Your task to perform on an android device: uninstall "Google Play services" Image 0: 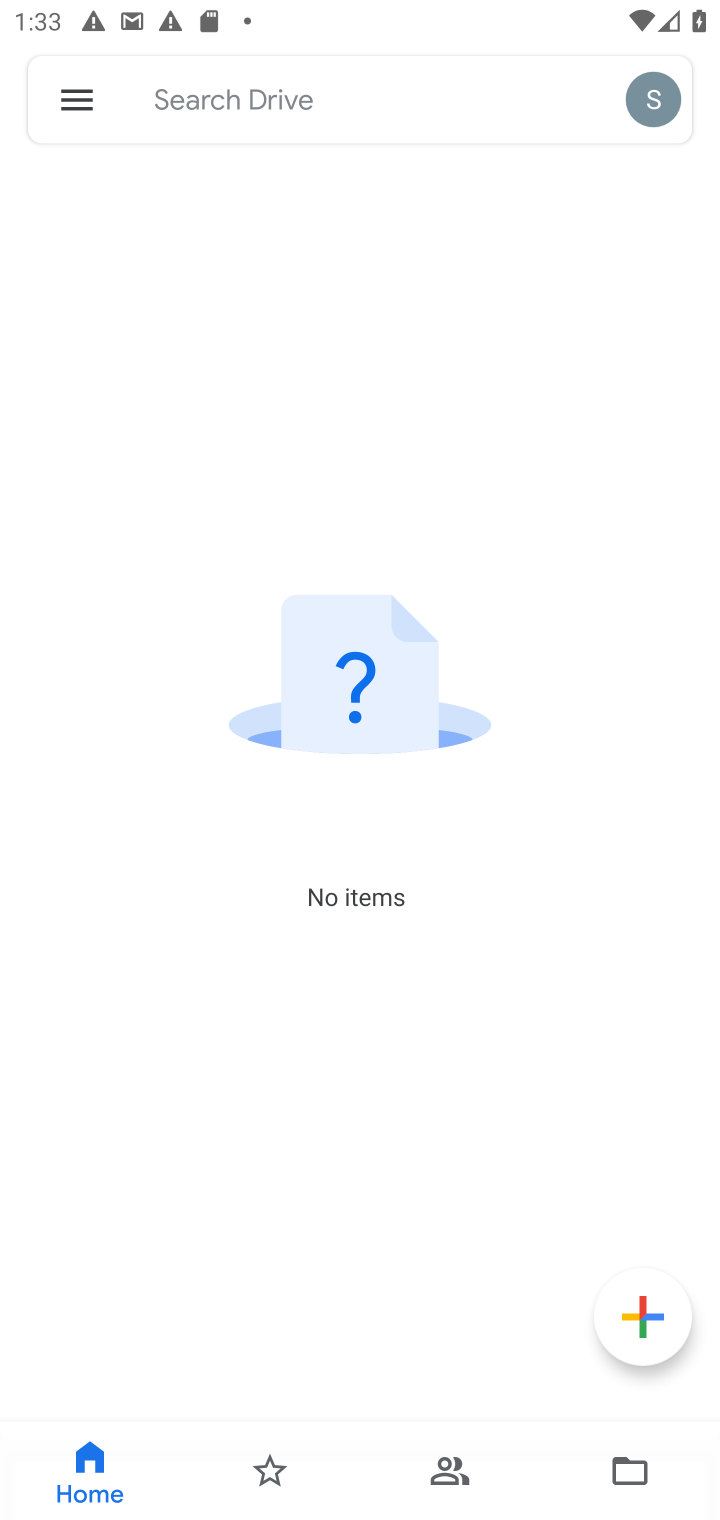
Step 0: press home button
Your task to perform on an android device: uninstall "Google Play services" Image 1: 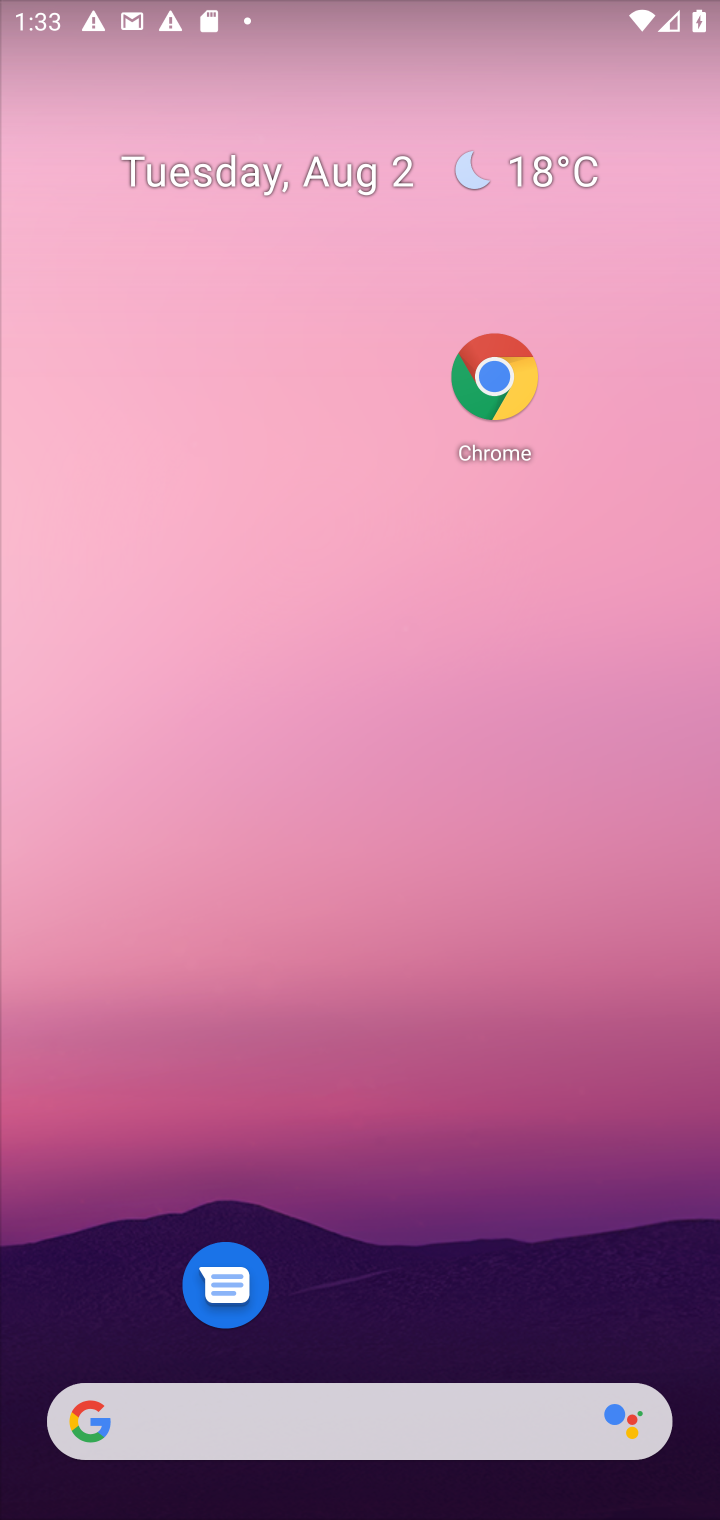
Step 1: drag from (343, 1340) to (366, 572)
Your task to perform on an android device: uninstall "Google Play services" Image 2: 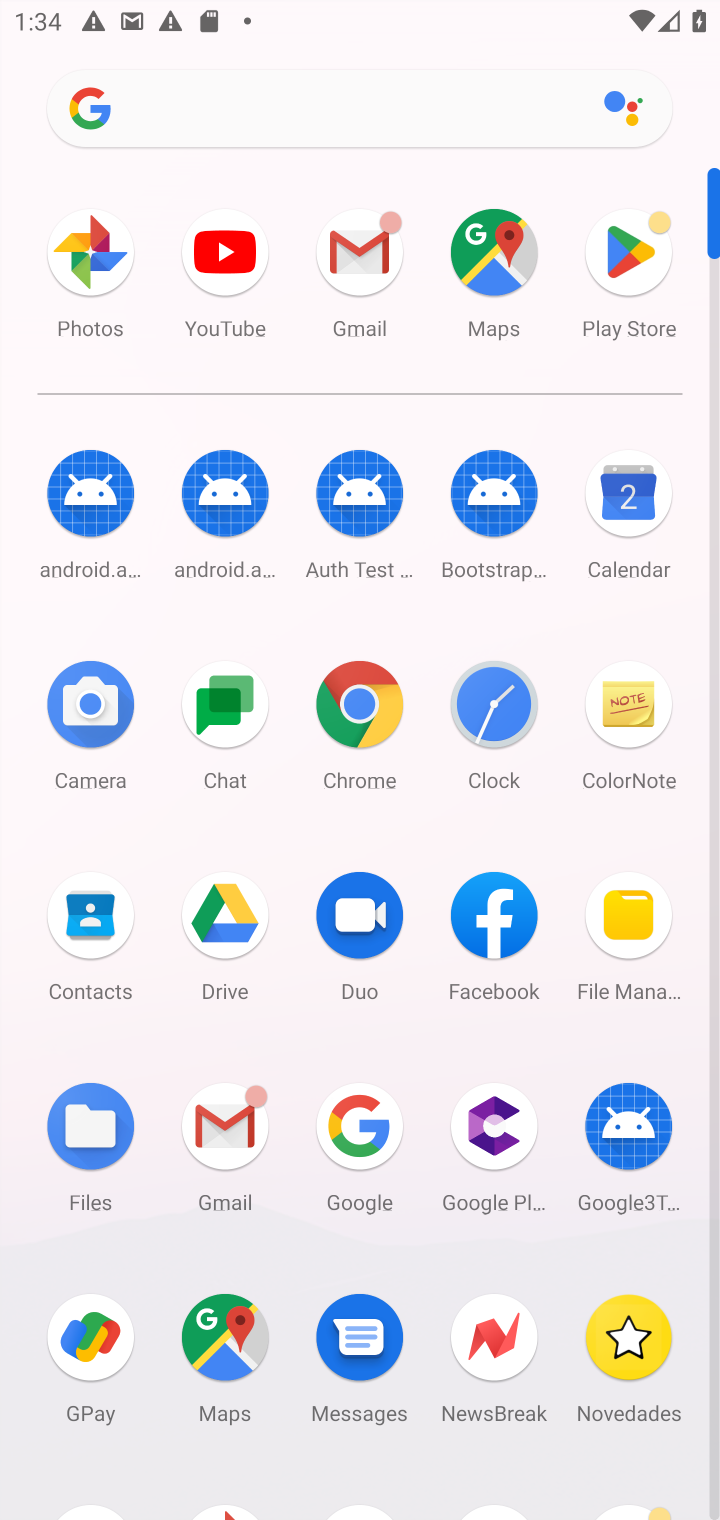
Step 2: click (628, 274)
Your task to perform on an android device: uninstall "Google Play services" Image 3: 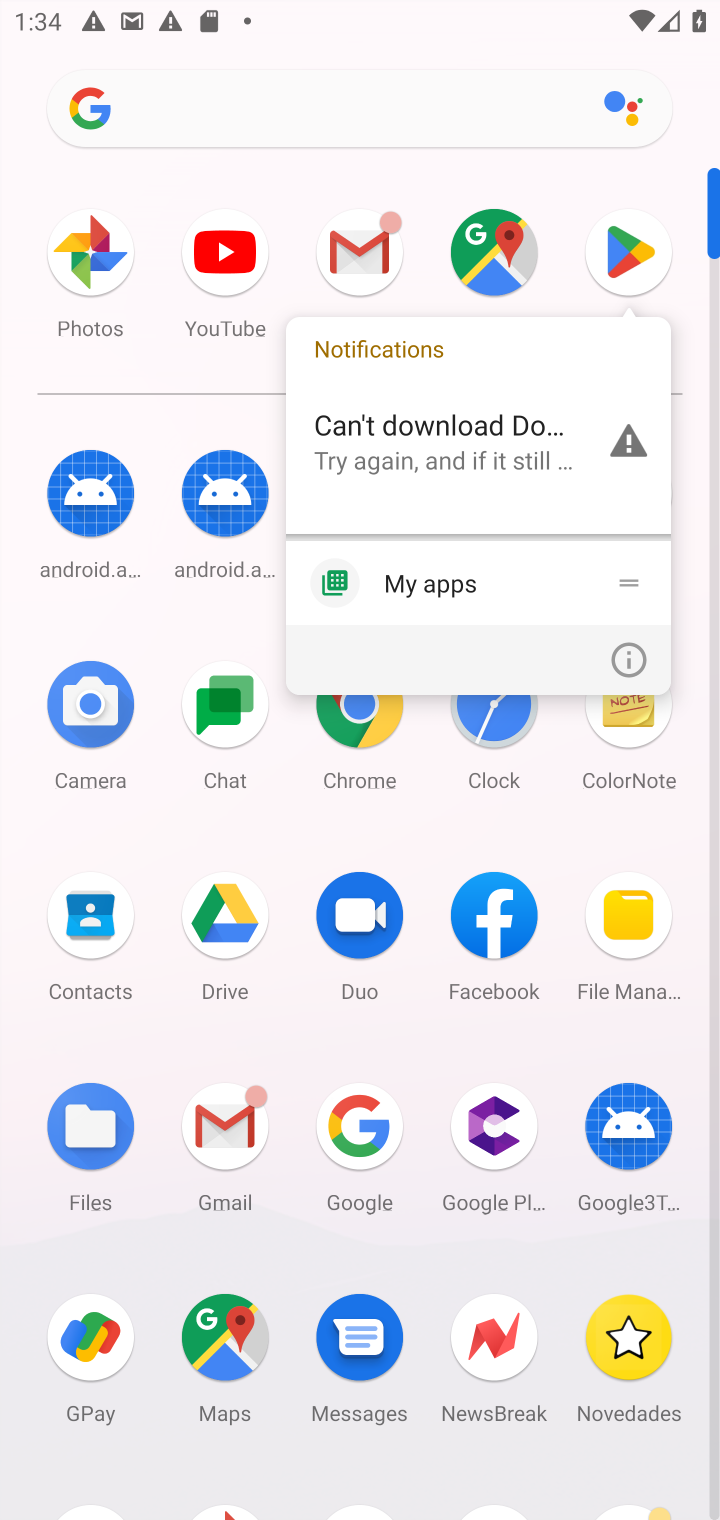
Step 3: click (647, 273)
Your task to perform on an android device: uninstall "Google Play services" Image 4: 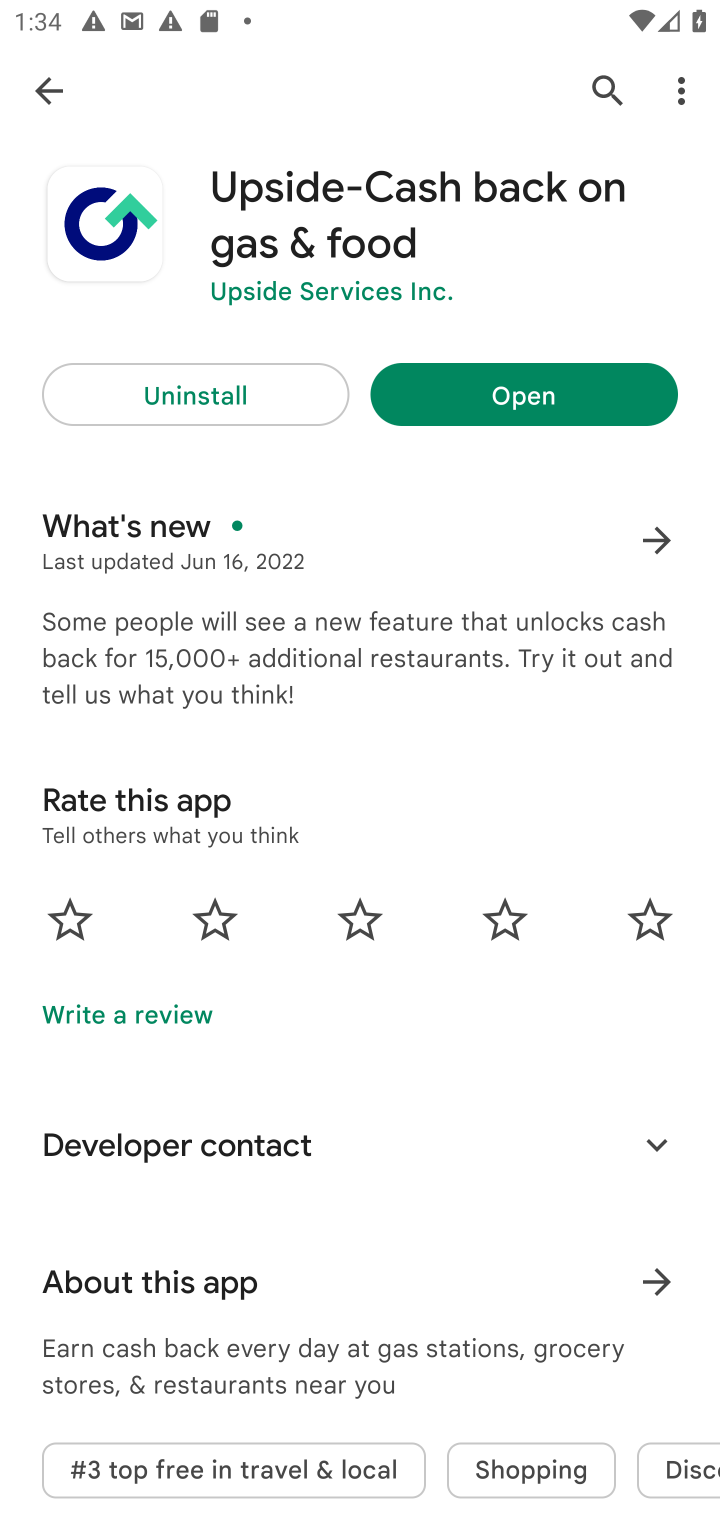
Step 4: click (616, 96)
Your task to perform on an android device: uninstall "Google Play services" Image 5: 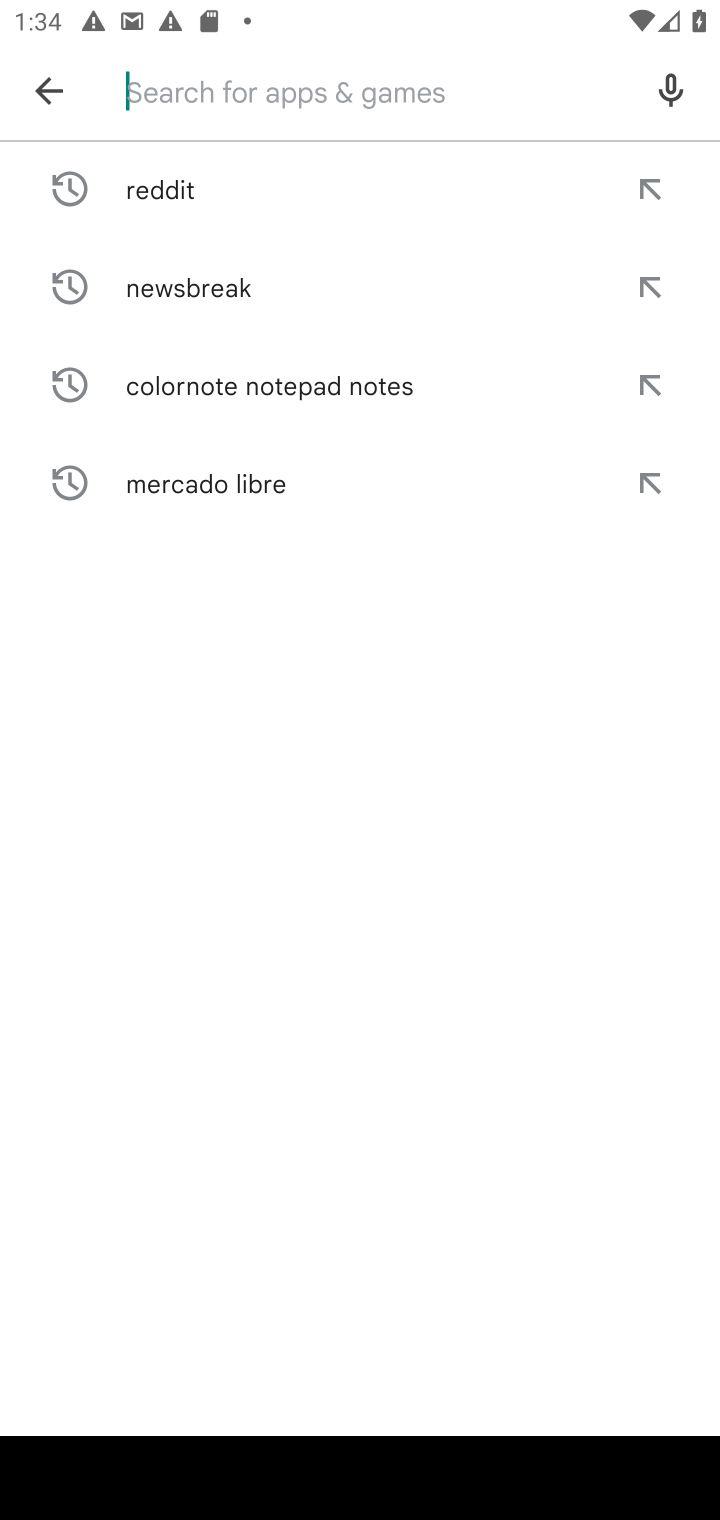
Step 5: click (164, 91)
Your task to perform on an android device: uninstall "Google Play services" Image 6: 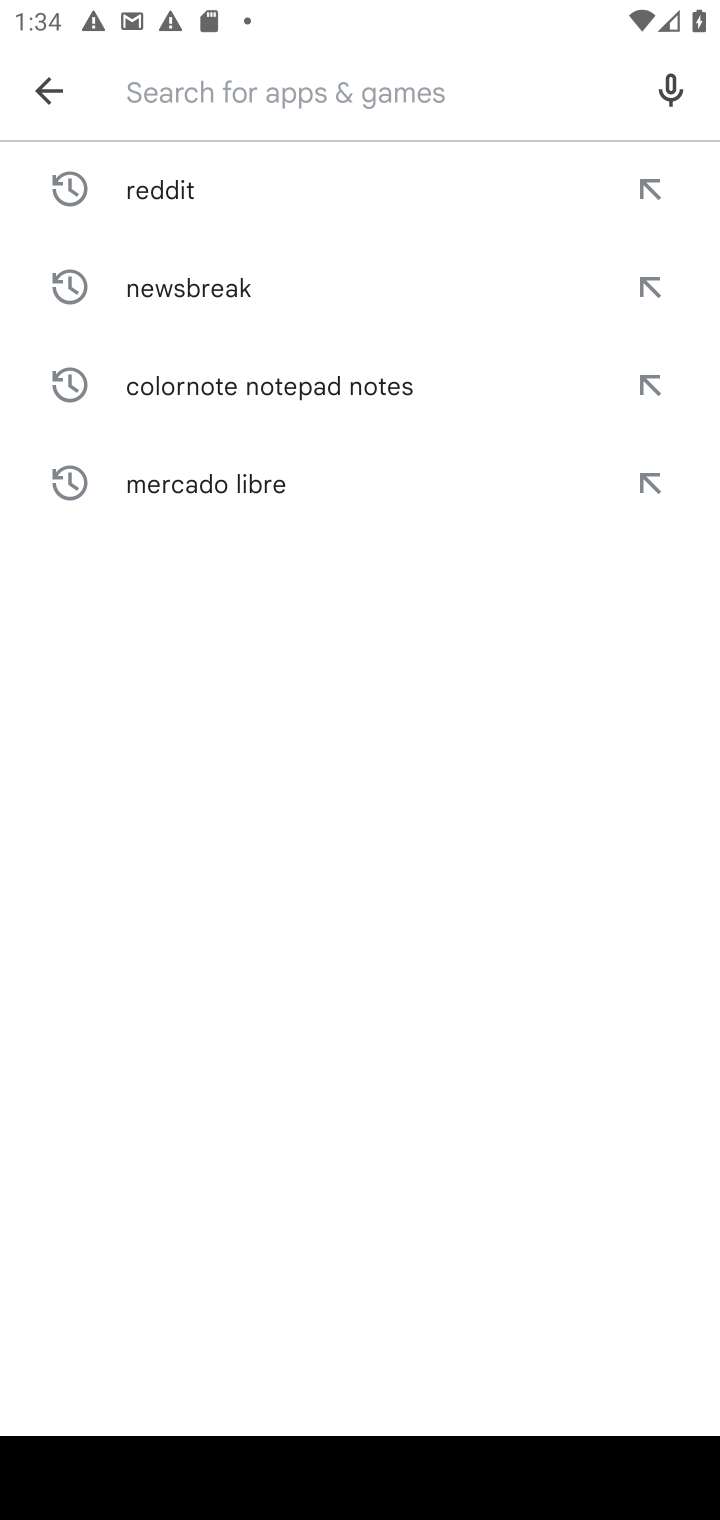
Step 6: type "Google Play services""
Your task to perform on an android device: uninstall "Google Play services" Image 7: 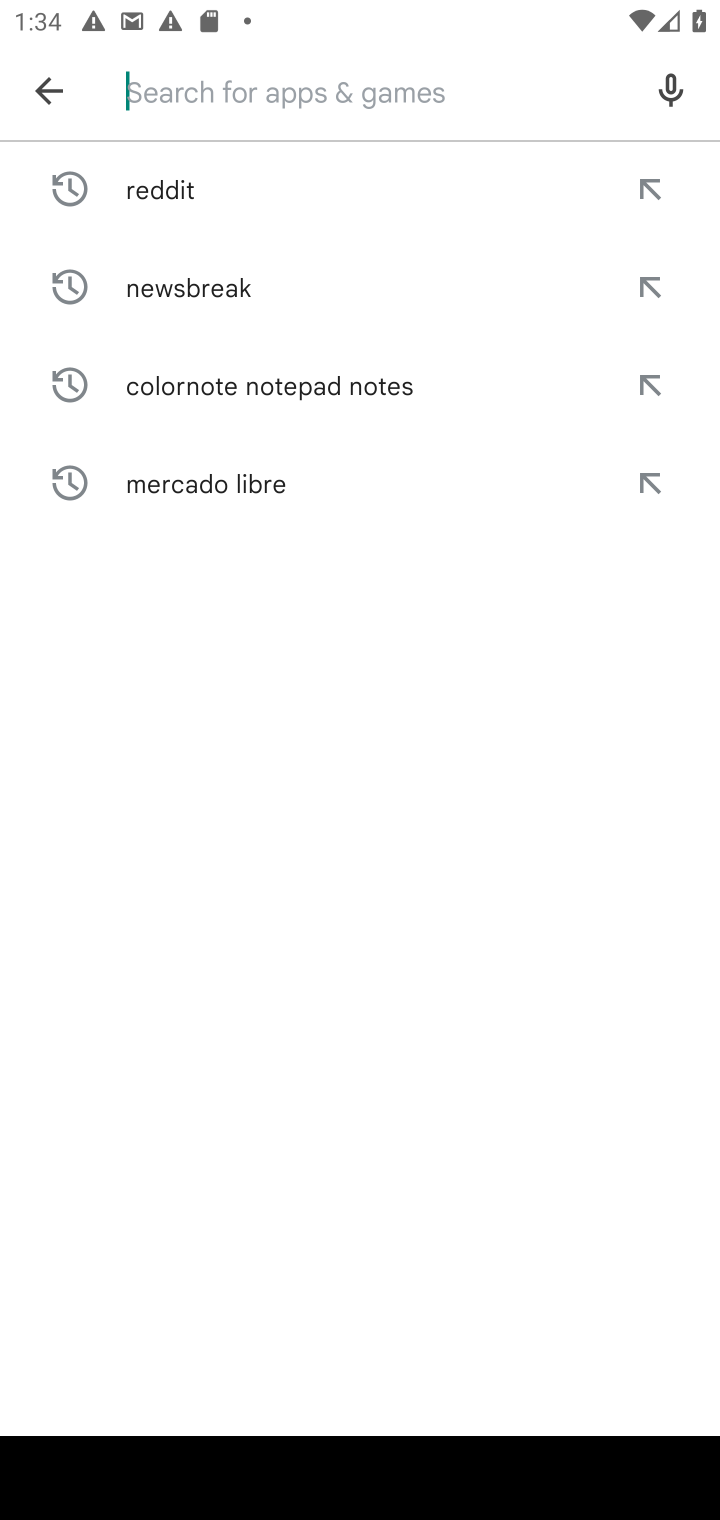
Step 7: type ""
Your task to perform on an android device: uninstall "Google Play services" Image 8: 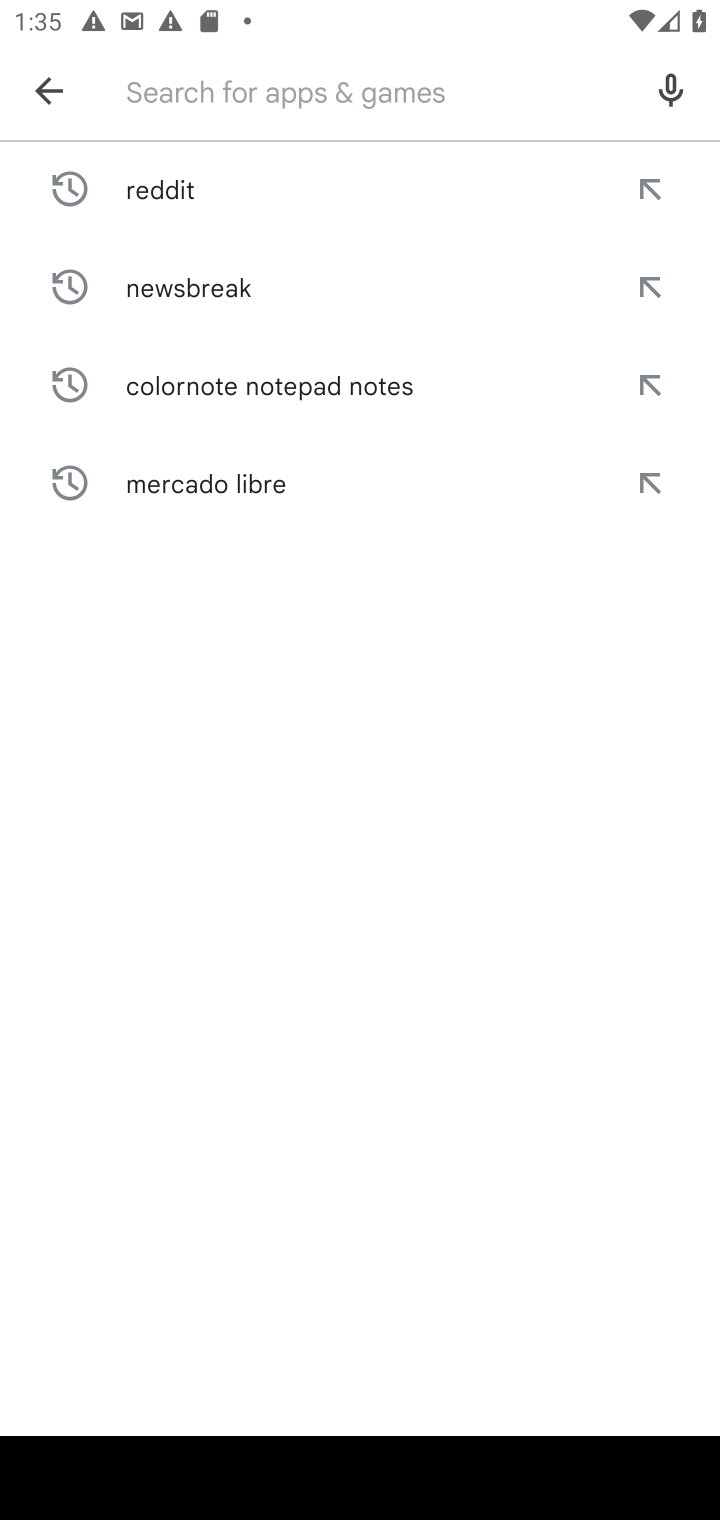
Step 8: type "Google Pay services"
Your task to perform on an android device: uninstall "Google Play services" Image 9: 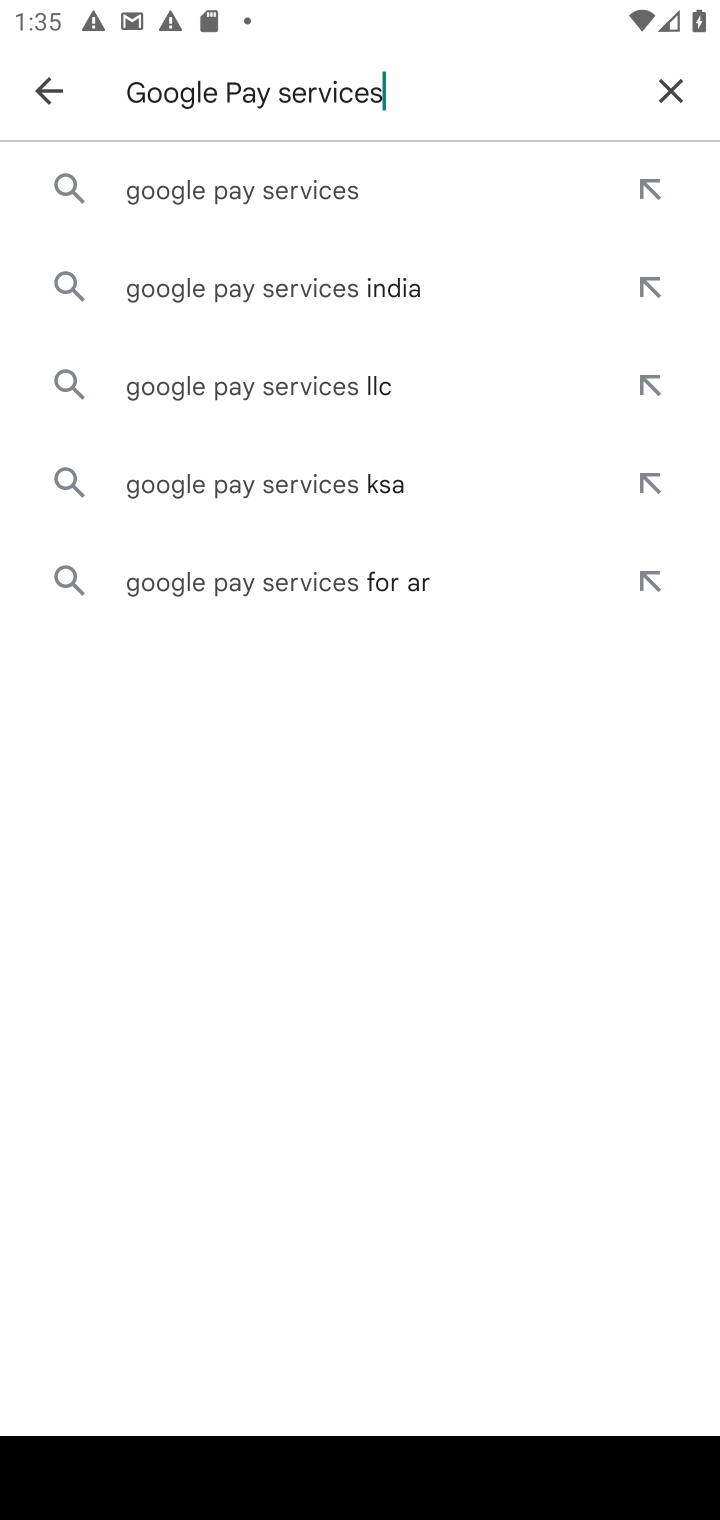
Step 9: click (141, 213)
Your task to perform on an android device: uninstall "Google Play services" Image 10: 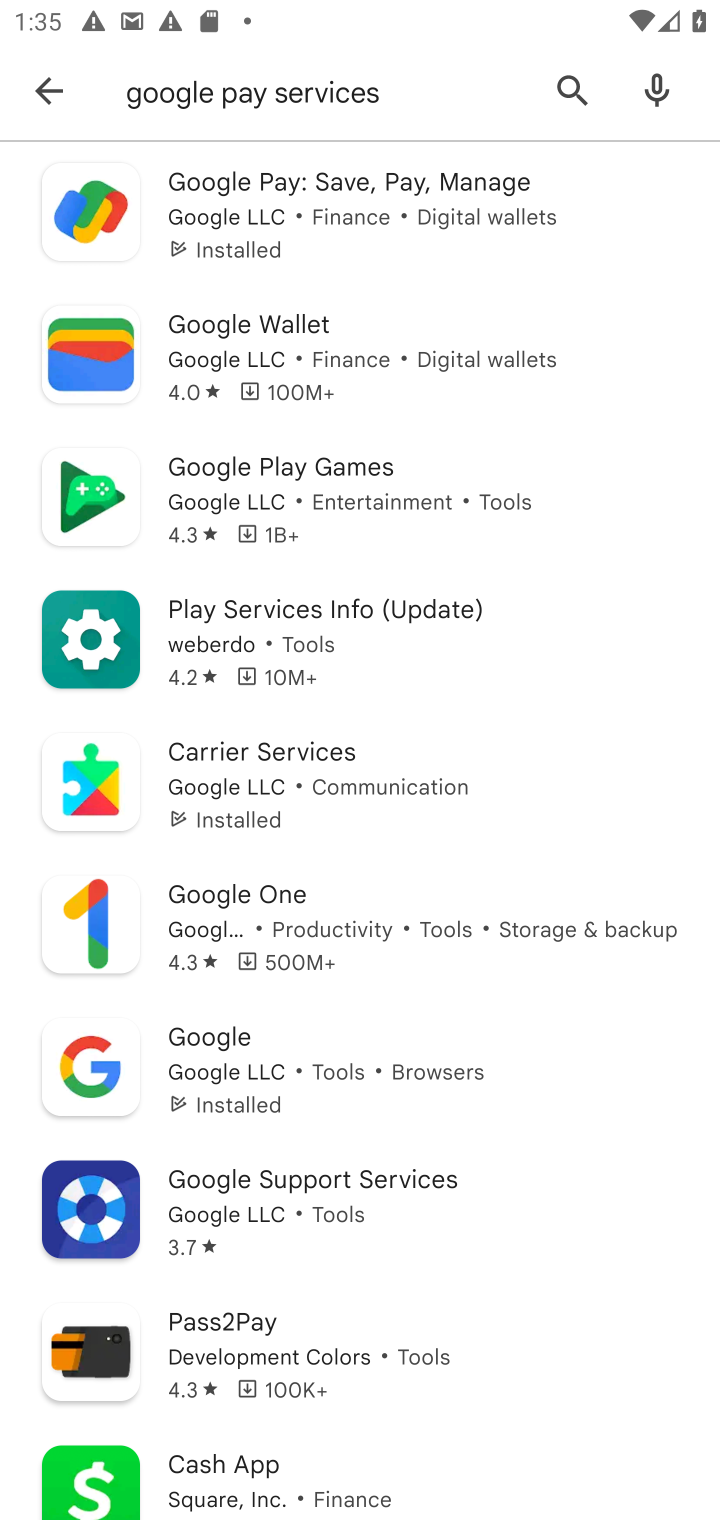
Step 10: click (298, 219)
Your task to perform on an android device: uninstall "Google Play services" Image 11: 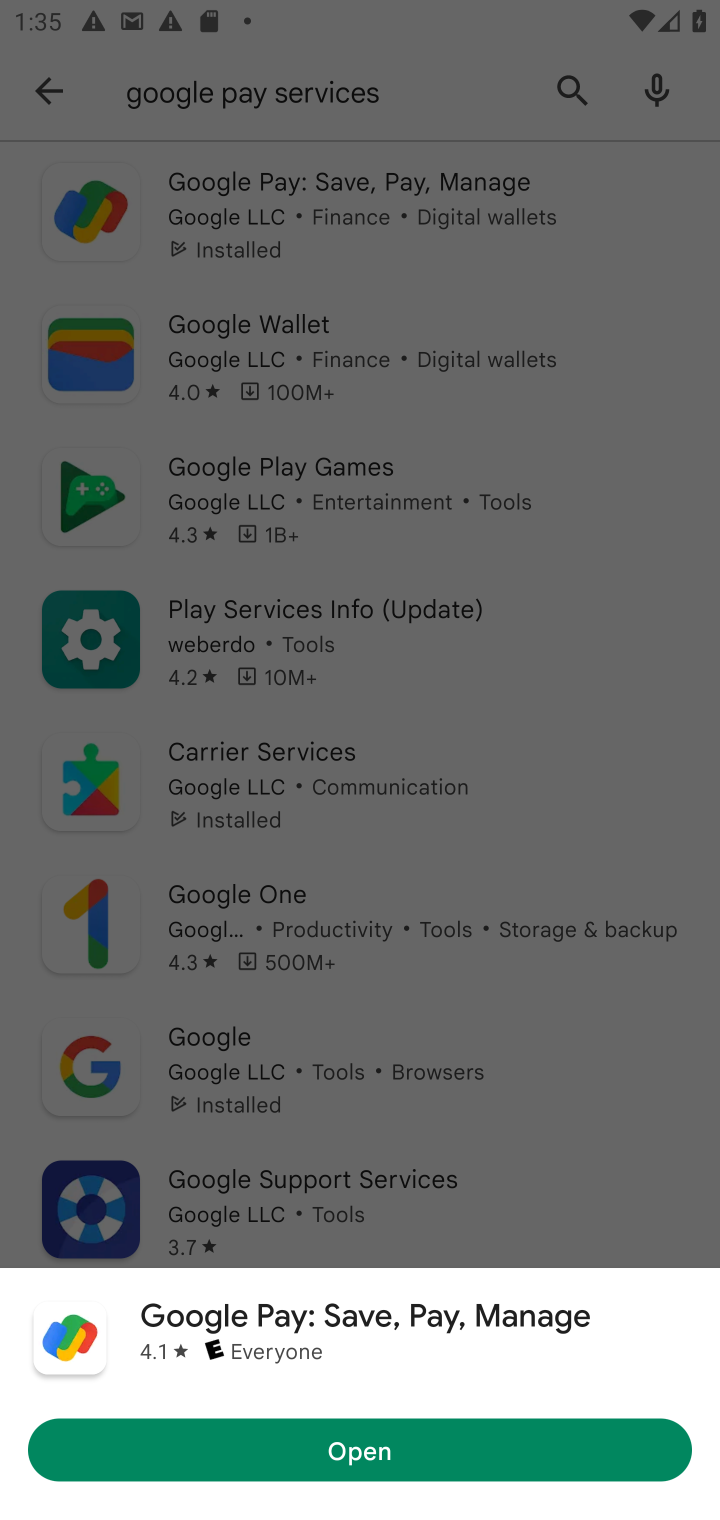
Step 11: click (246, 273)
Your task to perform on an android device: uninstall "Google Play services" Image 12: 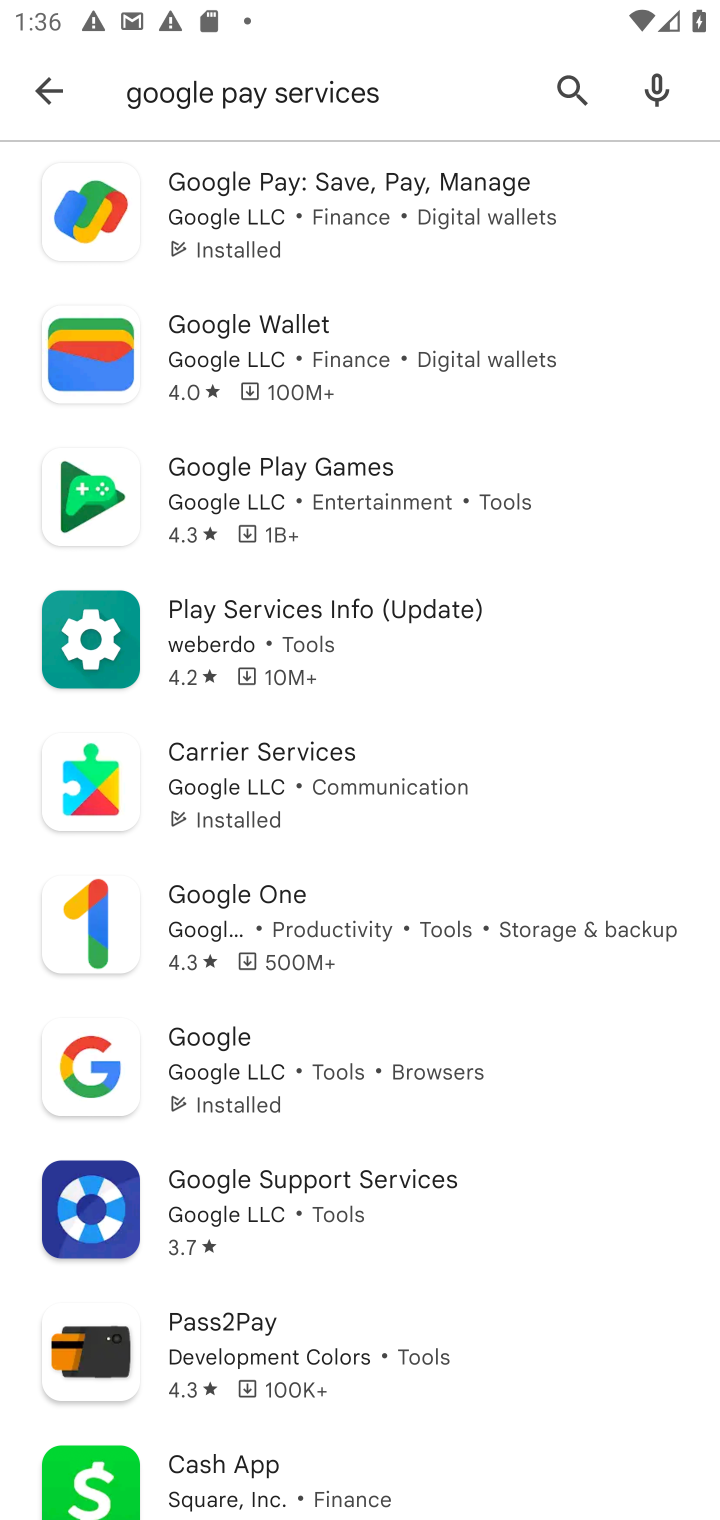
Step 12: click (305, 220)
Your task to perform on an android device: uninstall "Google Play services" Image 13: 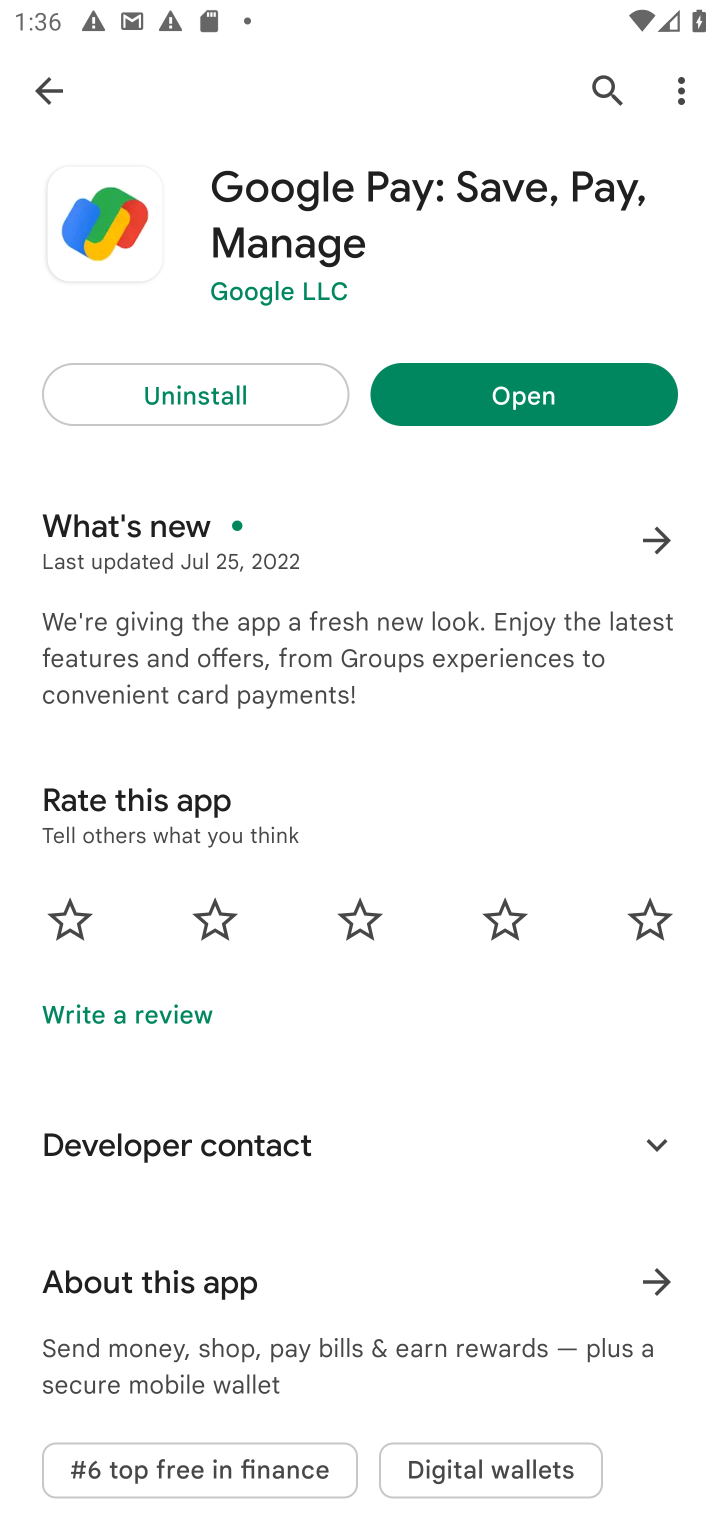
Step 13: click (205, 404)
Your task to perform on an android device: uninstall "Google Play services" Image 14: 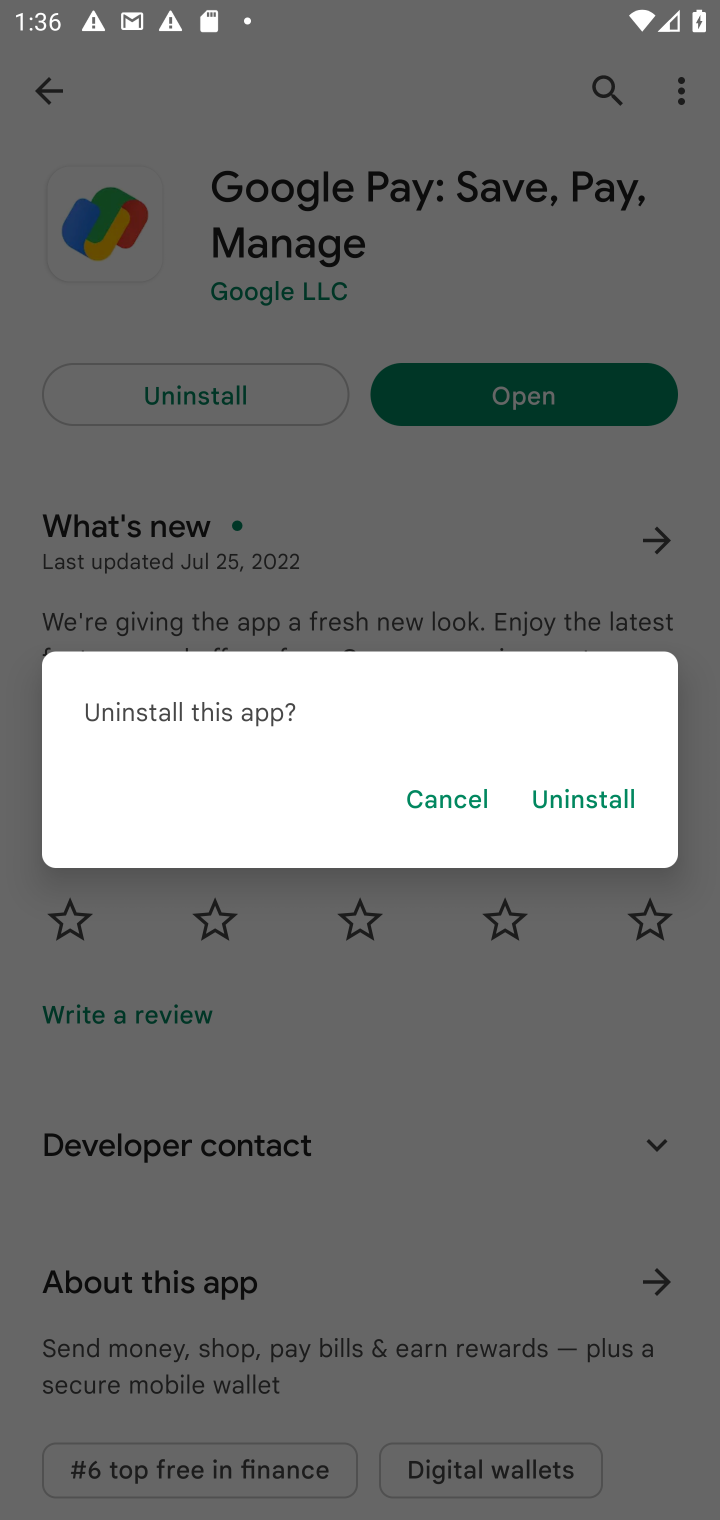
Step 14: click (557, 800)
Your task to perform on an android device: uninstall "Google Play services" Image 15: 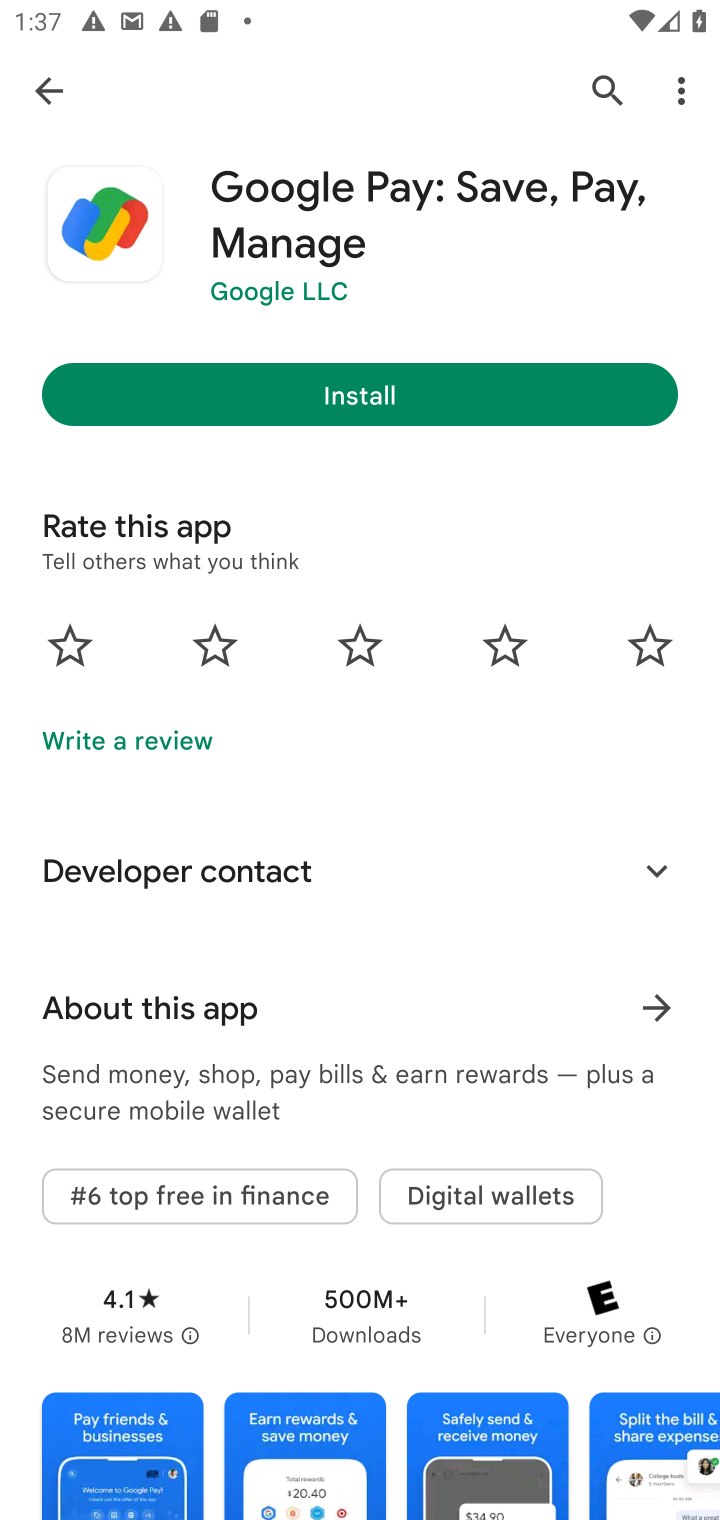
Step 15: task complete